Your task to perform on an android device: turn on data saver in the chrome app Image 0: 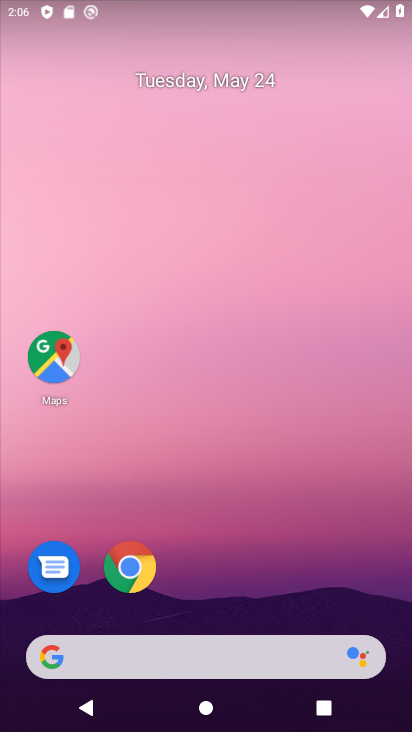
Step 0: click (117, 550)
Your task to perform on an android device: turn on data saver in the chrome app Image 1: 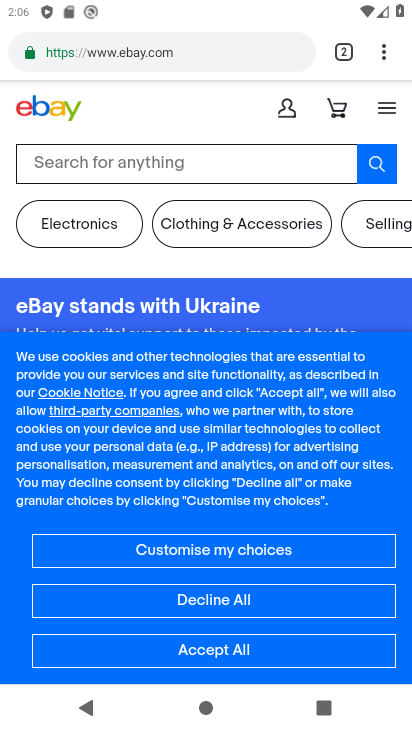
Step 1: drag from (379, 42) to (232, 627)
Your task to perform on an android device: turn on data saver in the chrome app Image 2: 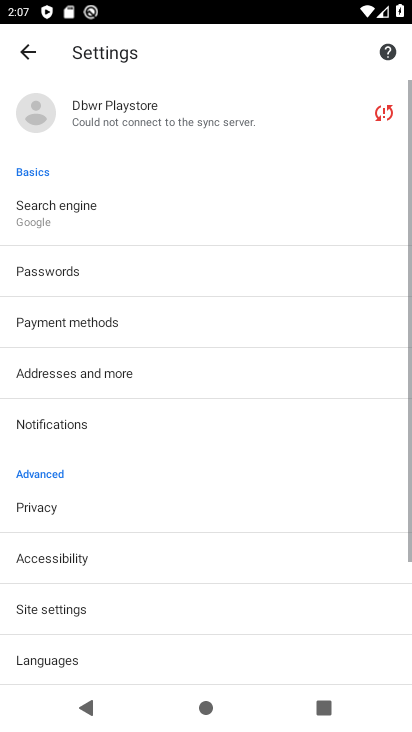
Step 2: drag from (229, 618) to (277, 119)
Your task to perform on an android device: turn on data saver in the chrome app Image 3: 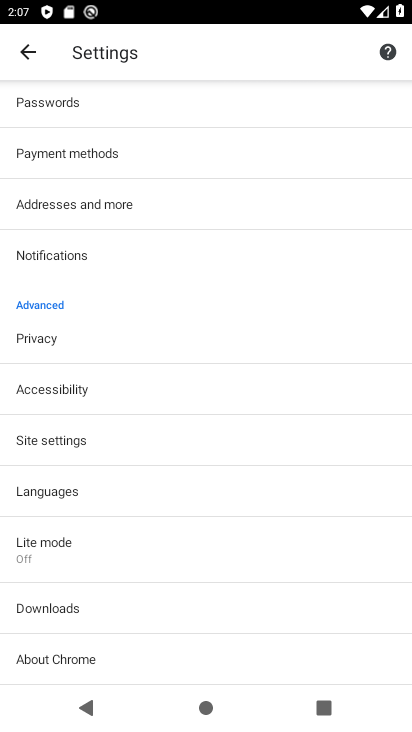
Step 3: click (90, 548)
Your task to perform on an android device: turn on data saver in the chrome app Image 4: 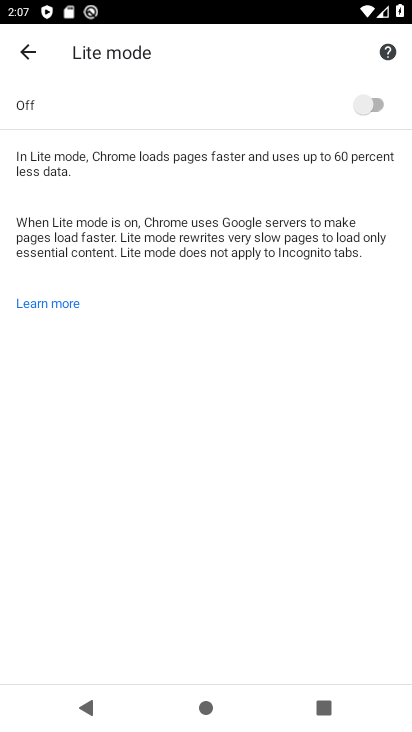
Step 4: click (357, 105)
Your task to perform on an android device: turn on data saver in the chrome app Image 5: 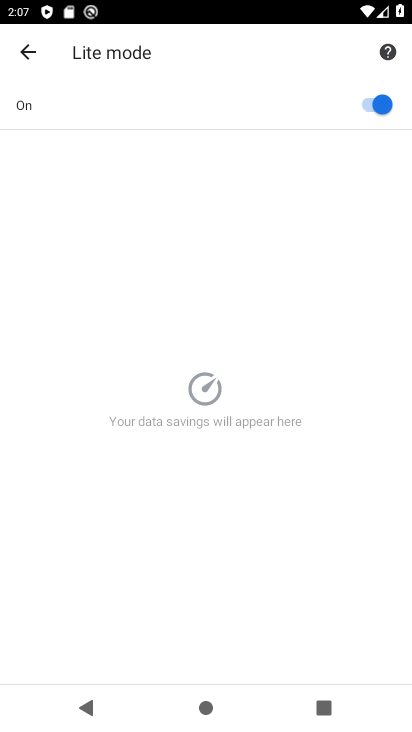
Step 5: task complete